Your task to perform on an android device: see sites visited before in the chrome app Image 0: 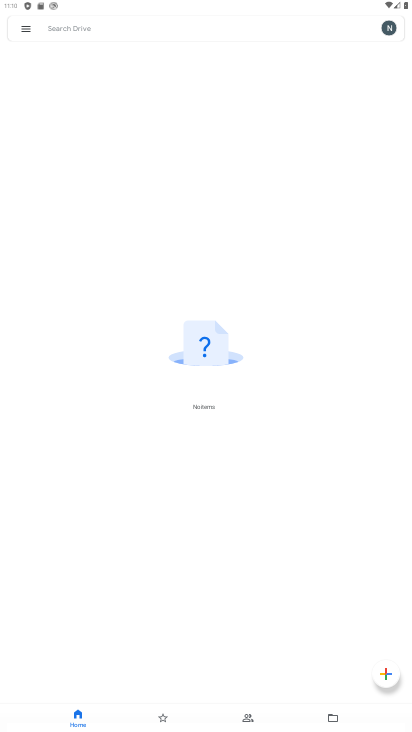
Step 0: press home button
Your task to perform on an android device: see sites visited before in the chrome app Image 1: 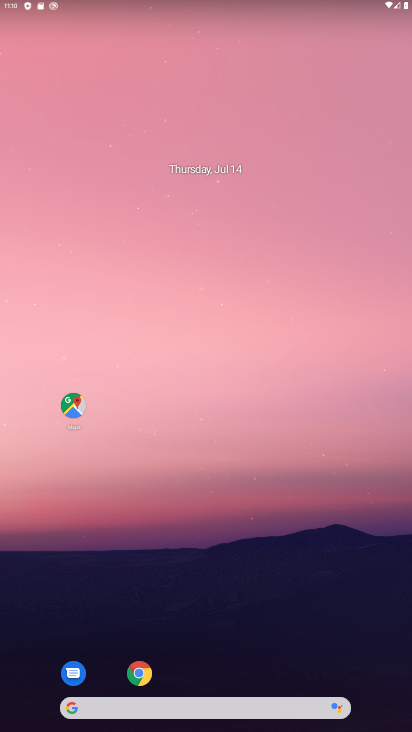
Step 1: click (141, 671)
Your task to perform on an android device: see sites visited before in the chrome app Image 2: 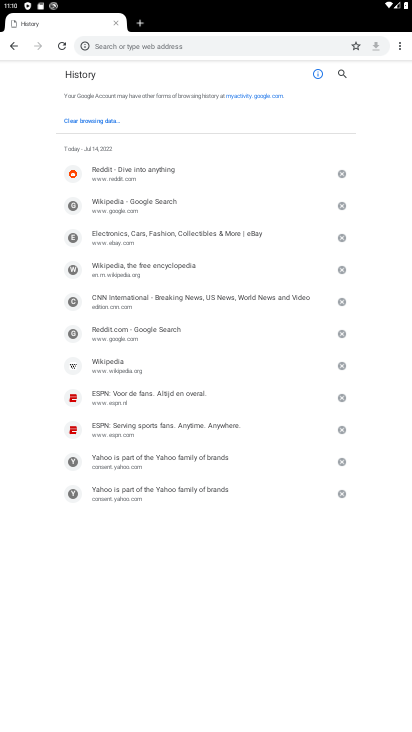
Step 2: task complete